Your task to perform on an android device: Open Reddit.com Image 0: 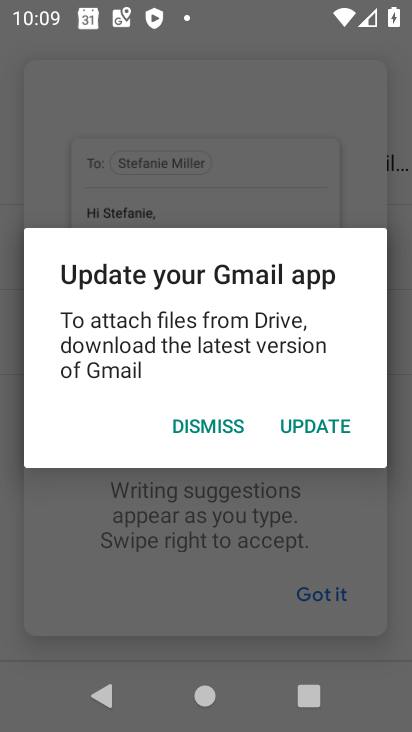
Step 0: press back button
Your task to perform on an android device: Open Reddit.com Image 1: 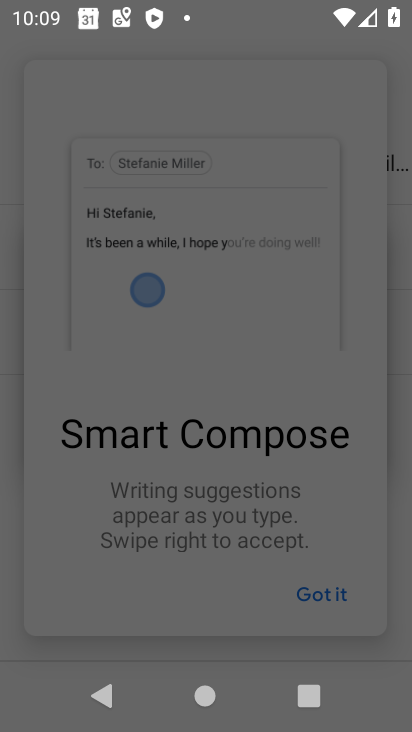
Step 1: press home button
Your task to perform on an android device: Open Reddit.com Image 2: 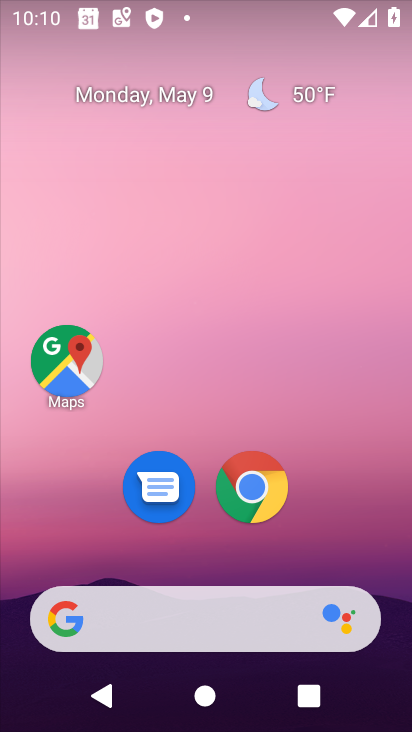
Step 2: click (385, 725)
Your task to perform on an android device: Open Reddit.com Image 3: 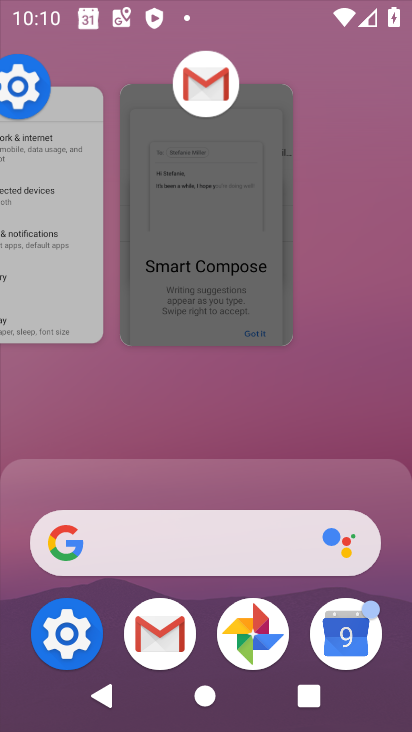
Step 3: press home button
Your task to perform on an android device: Open Reddit.com Image 4: 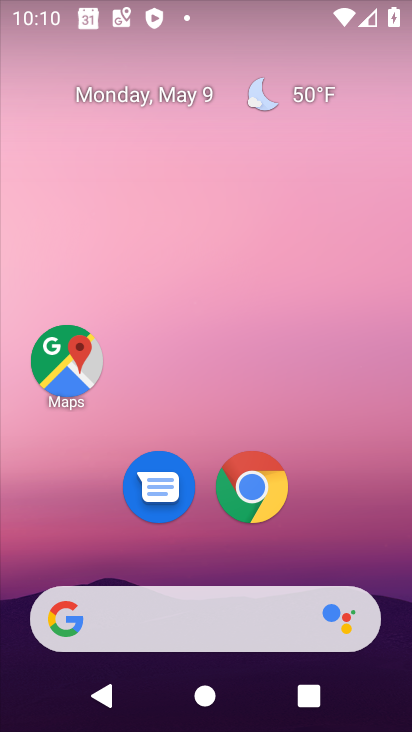
Step 4: click (253, 481)
Your task to perform on an android device: Open Reddit.com Image 5: 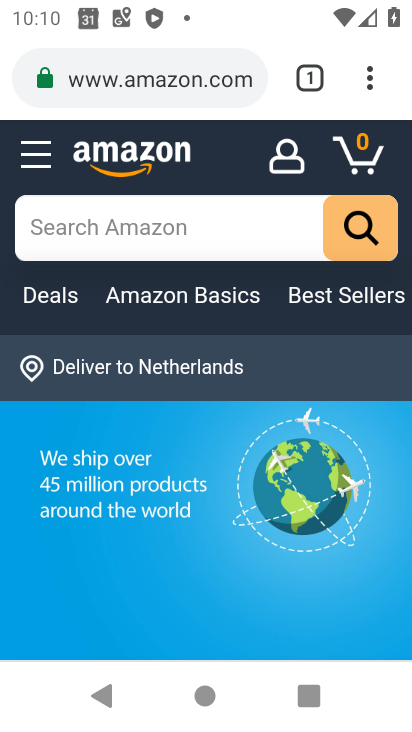
Step 5: click (178, 87)
Your task to perform on an android device: Open Reddit.com Image 6: 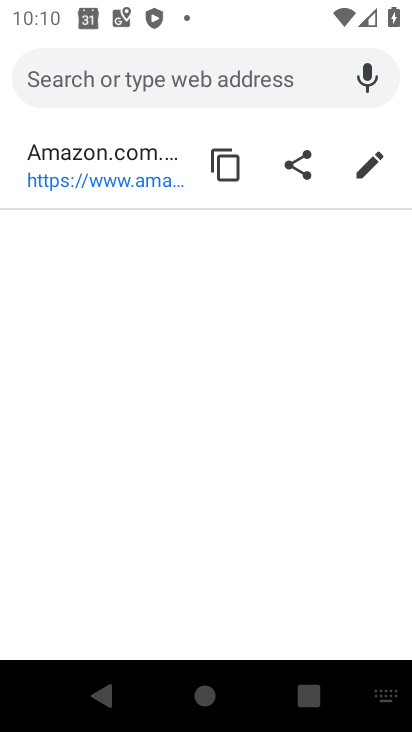
Step 6: type "Reddit.com"
Your task to perform on an android device: Open Reddit.com Image 7: 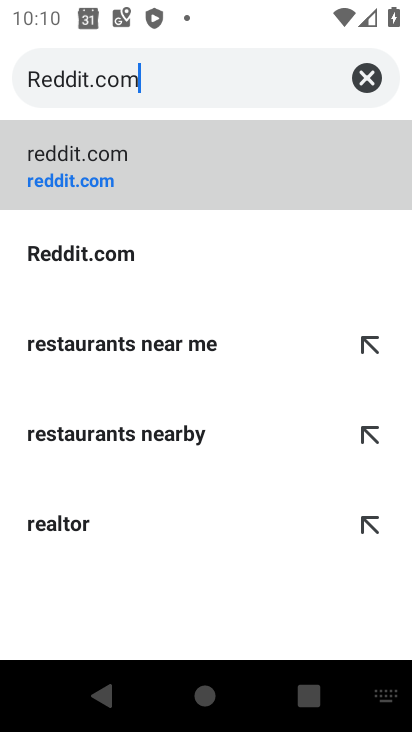
Step 7: type ""
Your task to perform on an android device: Open Reddit.com Image 8: 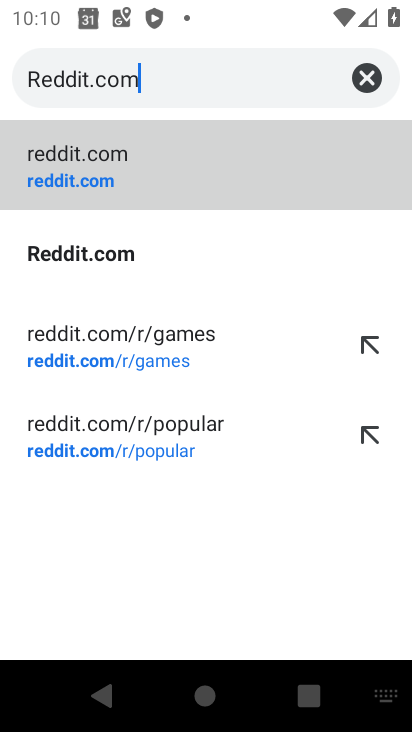
Step 8: click (137, 254)
Your task to perform on an android device: Open Reddit.com Image 9: 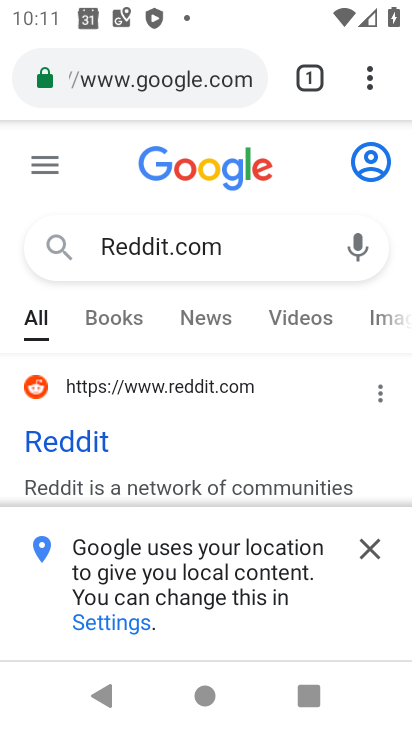
Step 9: task complete